Your task to perform on an android device: toggle priority inbox in the gmail app Image 0: 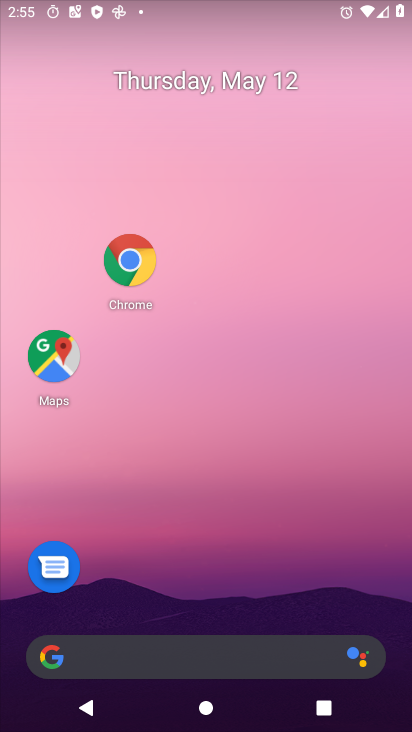
Step 0: drag from (273, 579) to (305, 354)
Your task to perform on an android device: toggle priority inbox in the gmail app Image 1: 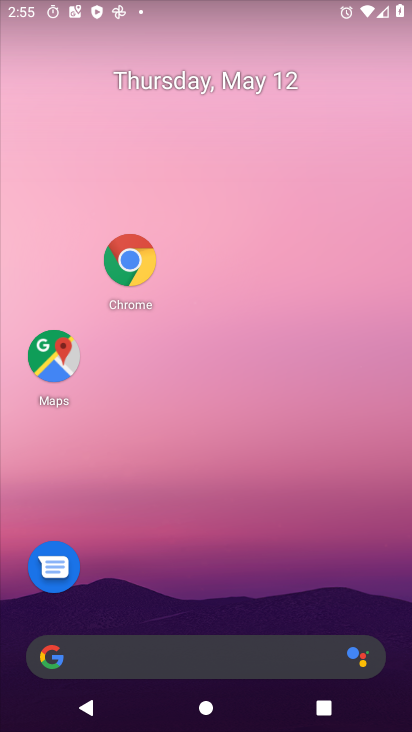
Step 1: drag from (190, 618) to (267, 171)
Your task to perform on an android device: toggle priority inbox in the gmail app Image 2: 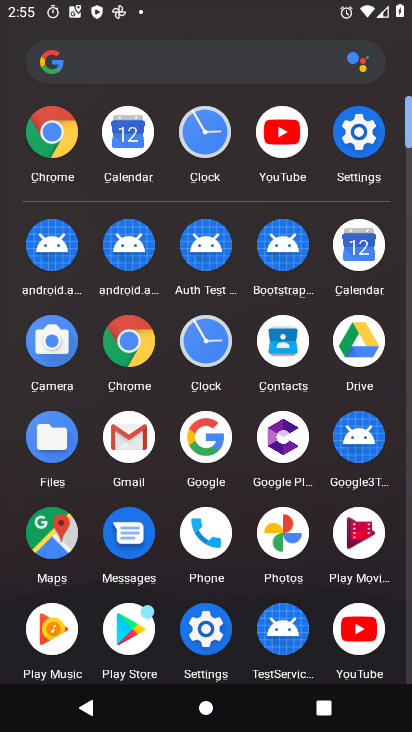
Step 2: click (130, 435)
Your task to perform on an android device: toggle priority inbox in the gmail app Image 3: 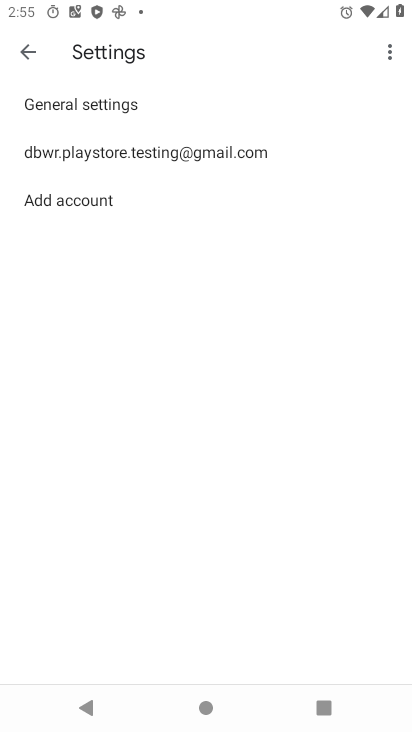
Step 3: click (126, 159)
Your task to perform on an android device: toggle priority inbox in the gmail app Image 4: 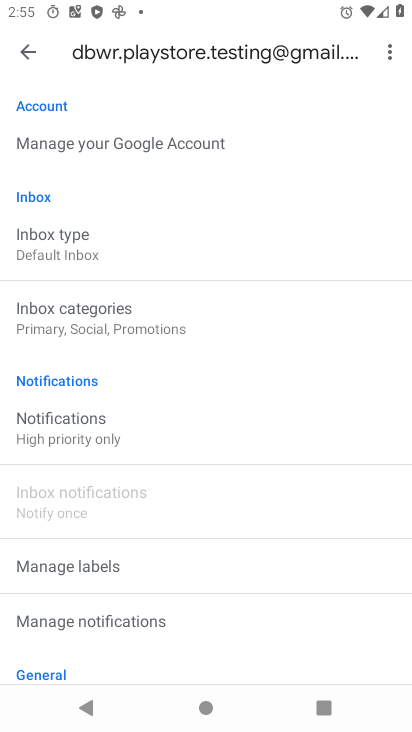
Step 4: click (104, 250)
Your task to perform on an android device: toggle priority inbox in the gmail app Image 5: 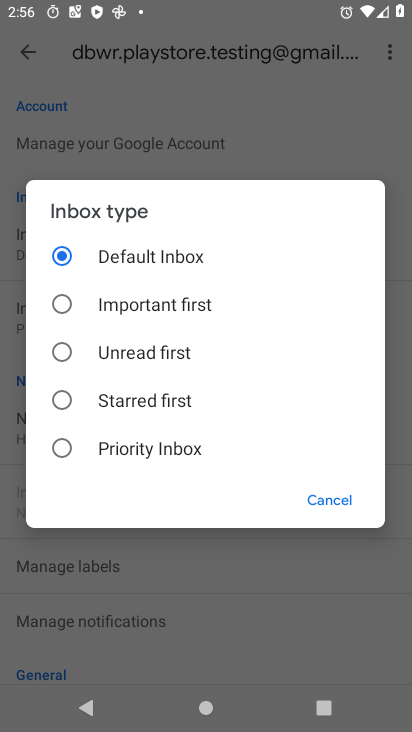
Step 5: click (85, 450)
Your task to perform on an android device: toggle priority inbox in the gmail app Image 6: 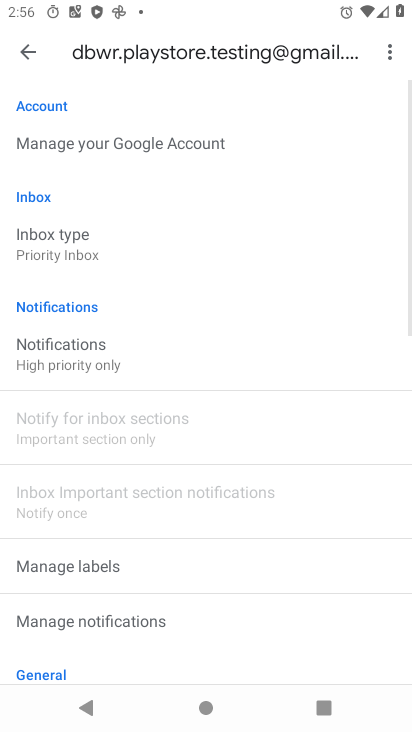
Step 6: task complete